Your task to perform on an android device: Open the phone app and click the voicemail tab. Image 0: 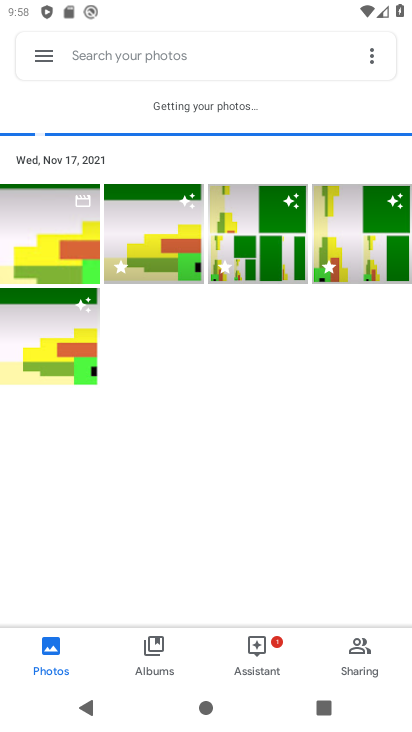
Step 0: press home button
Your task to perform on an android device: Open the phone app and click the voicemail tab. Image 1: 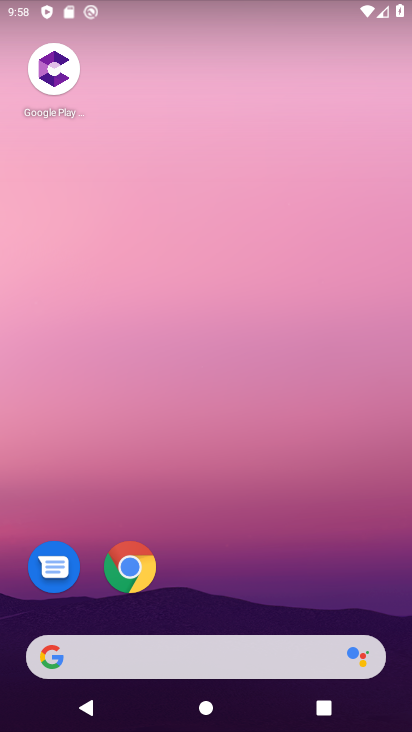
Step 1: drag from (247, 574) to (252, 222)
Your task to perform on an android device: Open the phone app and click the voicemail tab. Image 2: 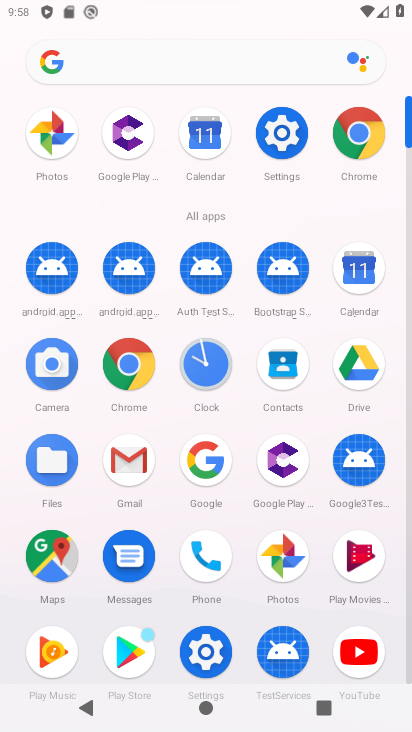
Step 2: click (215, 559)
Your task to perform on an android device: Open the phone app and click the voicemail tab. Image 3: 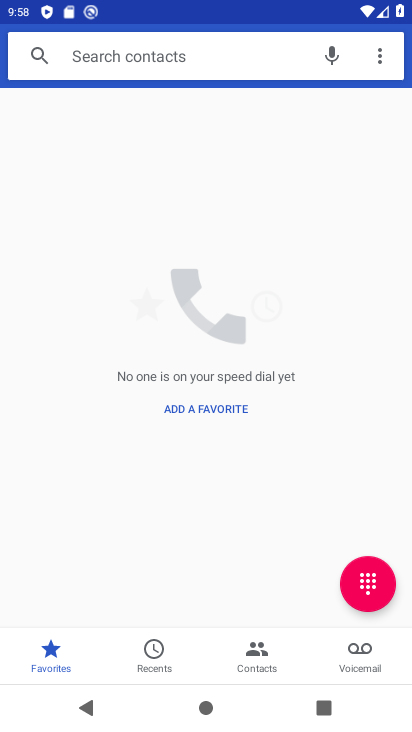
Step 3: click (358, 678)
Your task to perform on an android device: Open the phone app and click the voicemail tab. Image 4: 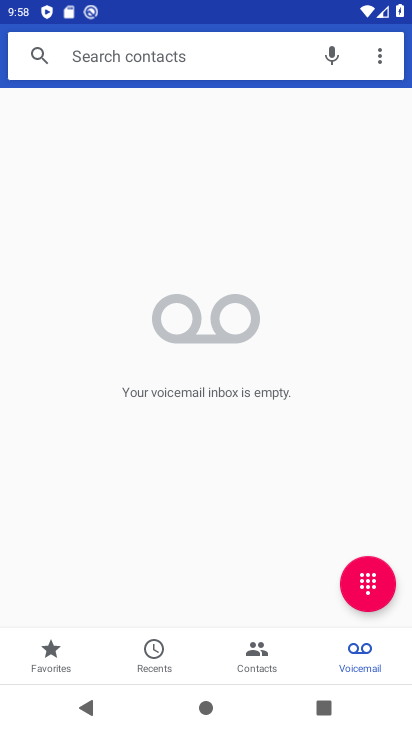
Step 4: task complete